Your task to perform on an android device: check battery use Image 0: 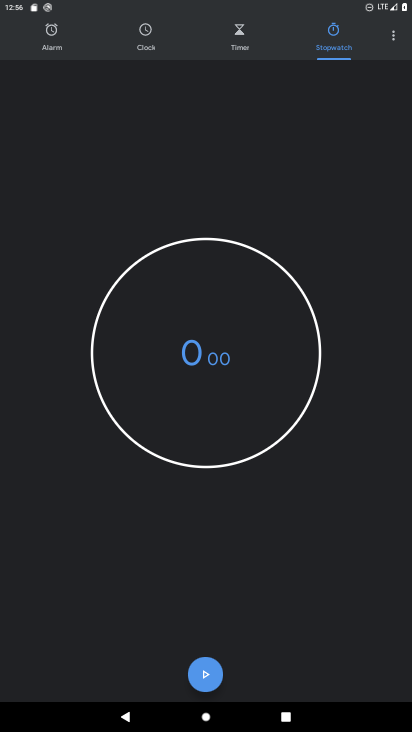
Step 0: press home button
Your task to perform on an android device: check battery use Image 1: 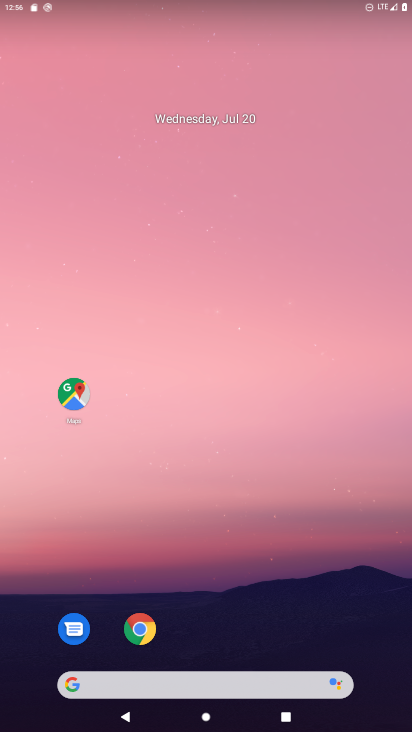
Step 1: drag from (194, 647) to (194, 157)
Your task to perform on an android device: check battery use Image 2: 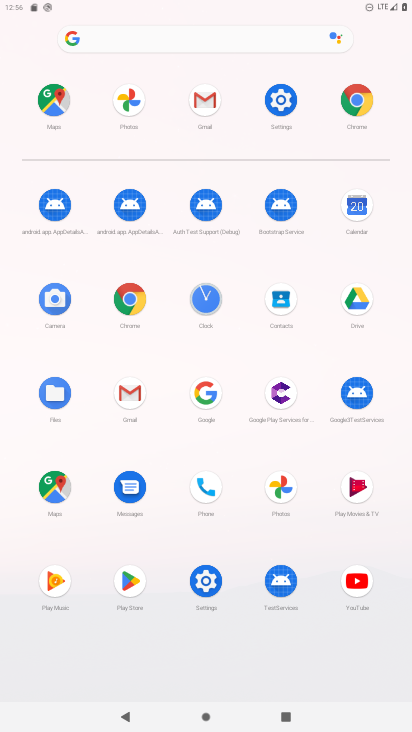
Step 2: click (279, 102)
Your task to perform on an android device: check battery use Image 3: 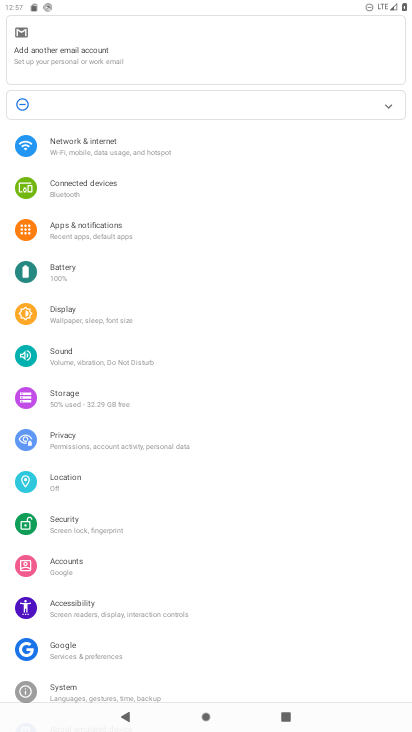
Step 3: click (53, 274)
Your task to perform on an android device: check battery use Image 4: 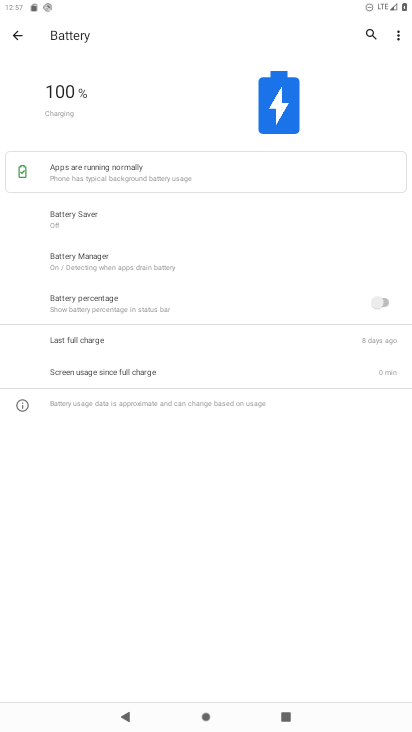
Step 4: task complete